Your task to perform on an android device: toggle sleep mode Image 0: 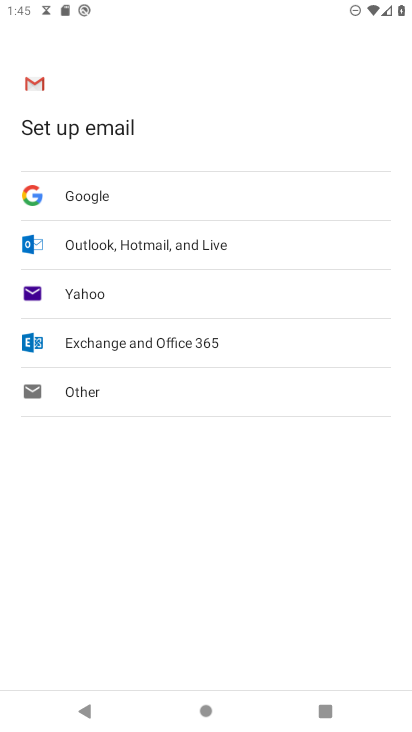
Step 0: press home button
Your task to perform on an android device: toggle sleep mode Image 1: 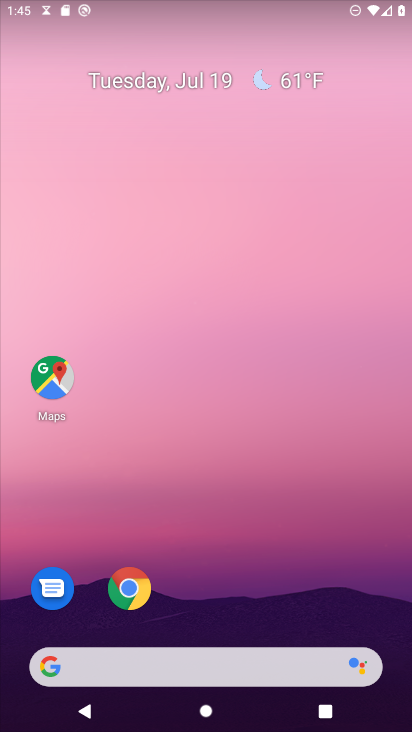
Step 1: drag from (225, 661) to (224, 149)
Your task to perform on an android device: toggle sleep mode Image 2: 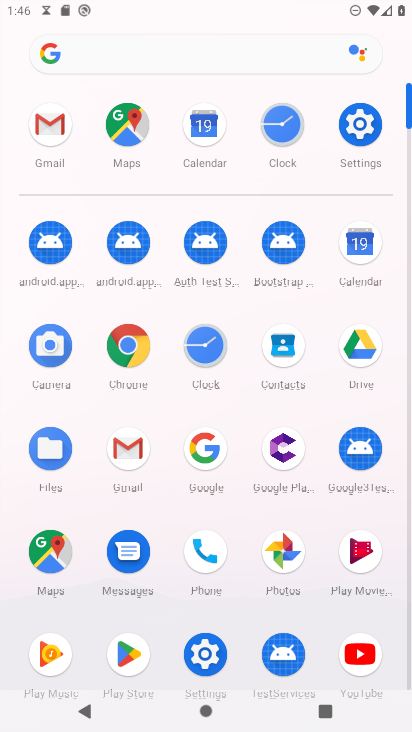
Step 2: click (218, 662)
Your task to perform on an android device: toggle sleep mode Image 3: 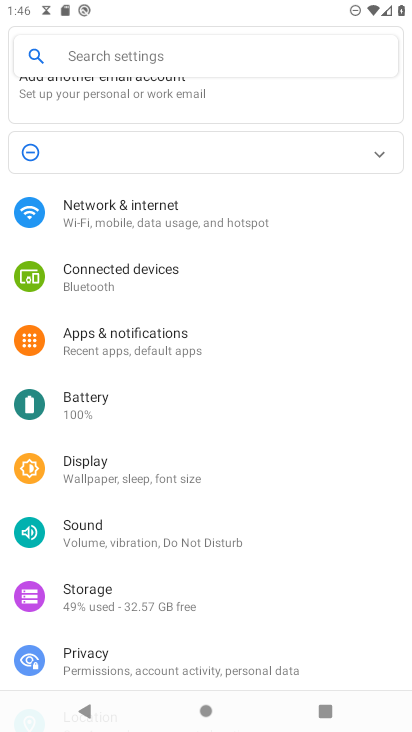
Step 3: click (96, 52)
Your task to perform on an android device: toggle sleep mode Image 4: 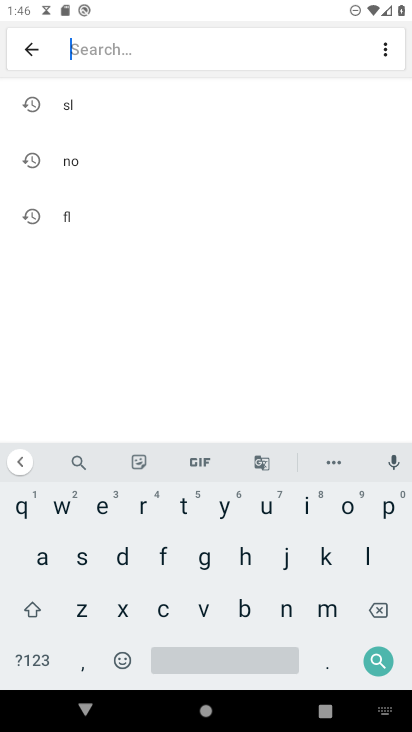
Step 4: click (75, 102)
Your task to perform on an android device: toggle sleep mode Image 5: 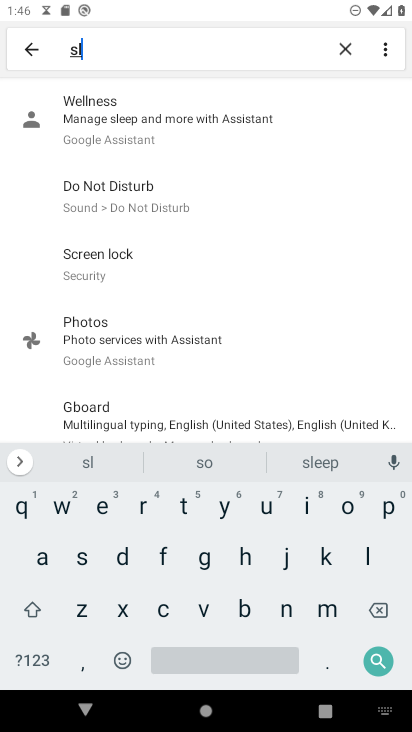
Step 5: click (133, 186)
Your task to perform on an android device: toggle sleep mode Image 6: 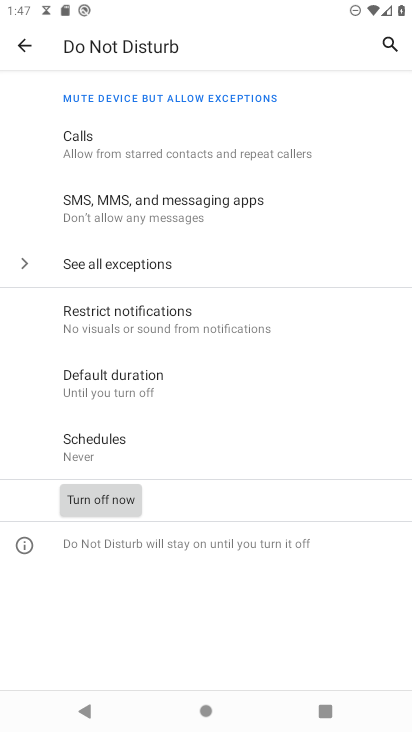
Step 6: task complete